Your task to perform on an android device: Set the phone to "Do not disturb". Image 0: 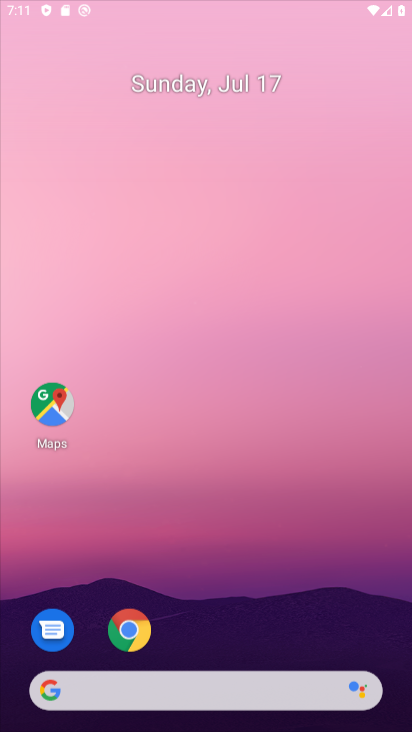
Step 0: press home button
Your task to perform on an android device: Set the phone to "Do not disturb". Image 1: 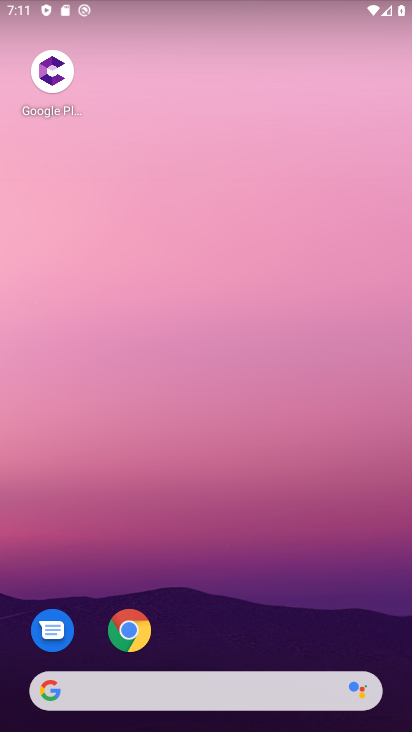
Step 1: drag from (175, 10) to (214, 481)
Your task to perform on an android device: Set the phone to "Do not disturb". Image 2: 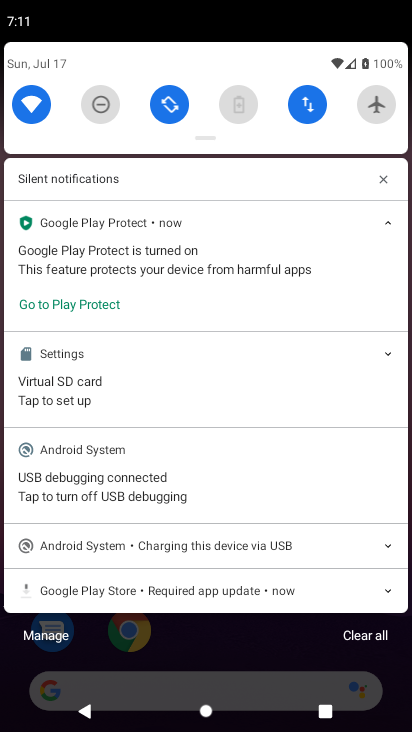
Step 2: click (105, 106)
Your task to perform on an android device: Set the phone to "Do not disturb". Image 3: 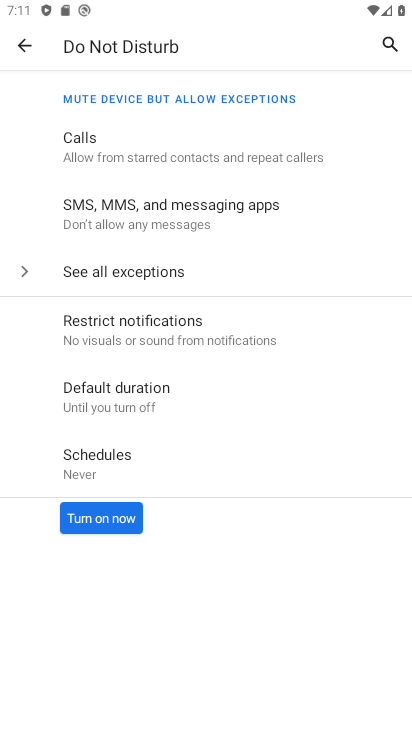
Step 3: click (101, 522)
Your task to perform on an android device: Set the phone to "Do not disturb". Image 4: 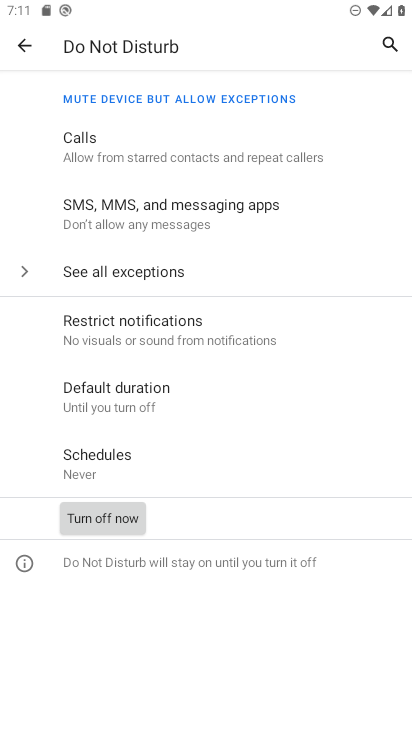
Step 4: task complete